Your task to perform on an android device: turn on notifications settings in the gmail app Image 0: 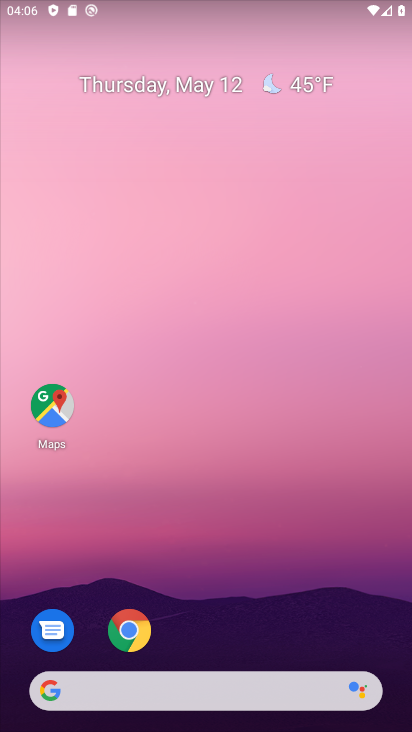
Step 0: drag from (209, 602) to (260, 68)
Your task to perform on an android device: turn on notifications settings in the gmail app Image 1: 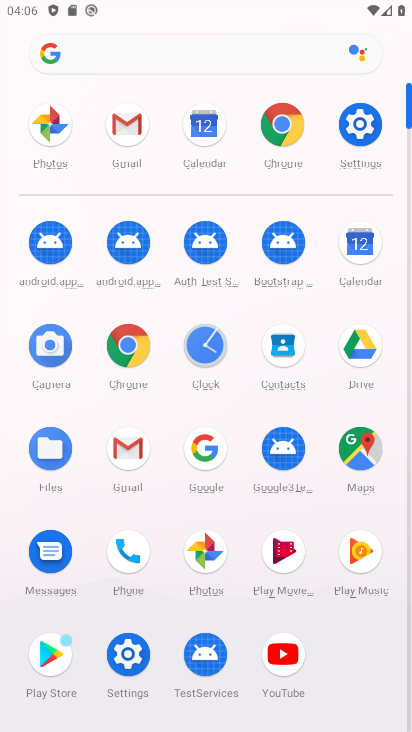
Step 1: click (115, 450)
Your task to perform on an android device: turn on notifications settings in the gmail app Image 2: 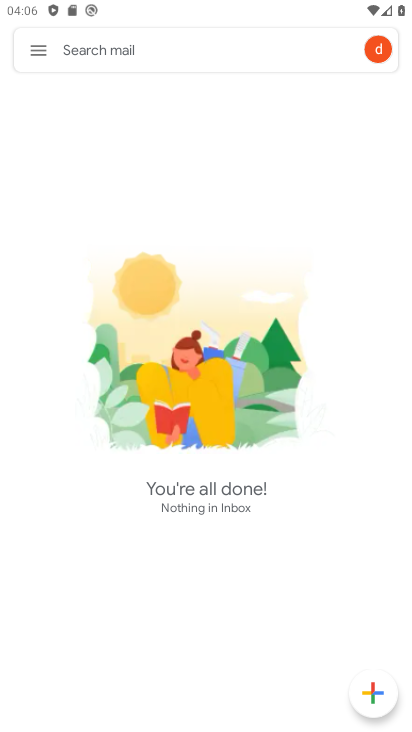
Step 2: click (39, 46)
Your task to perform on an android device: turn on notifications settings in the gmail app Image 3: 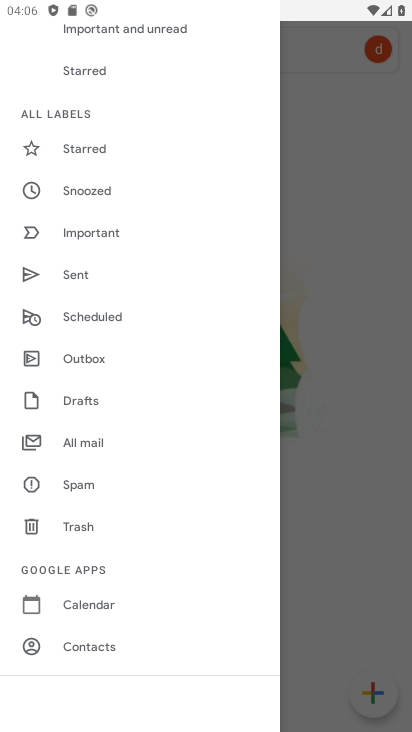
Step 3: drag from (76, 575) to (108, 206)
Your task to perform on an android device: turn on notifications settings in the gmail app Image 4: 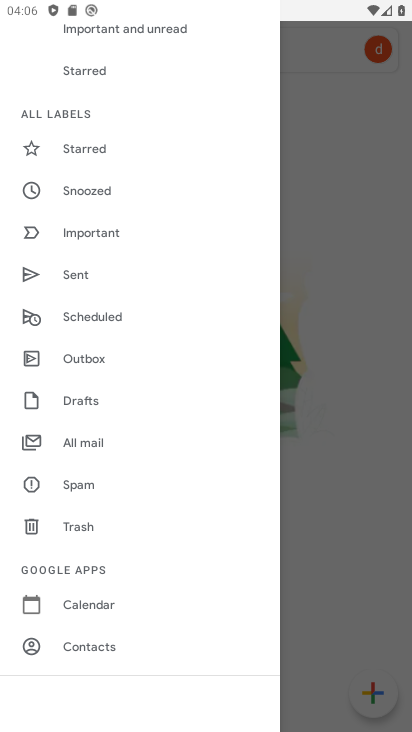
Step 4: drag from (93, 621) to (136, 211)
Your task to perform on an android device: turn on notifications settings in the gmail app Image 5: 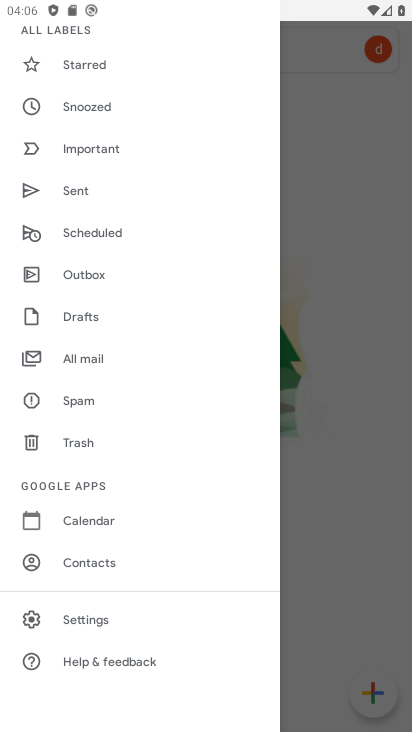
Step 5: click (94, 622)
Your task to perform on an android device: turn on notifications settings in the gmail app Image 6: 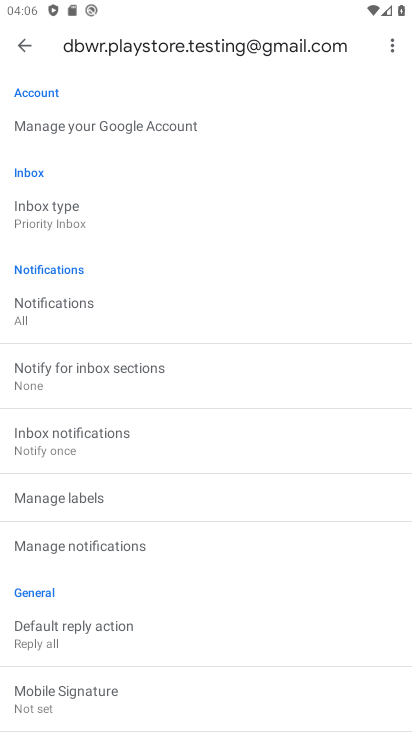
Step 6: click (19, 37)
Your task to perform on an android device: turn on notifications settings in the gmail app Image 7: 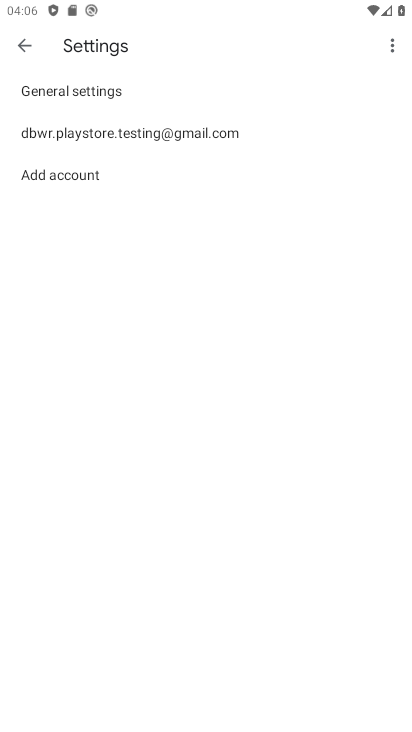
Step 7: click (111, 83)
Your task to perform on an android device: turn on notifications settings in the gmail app Image 8: 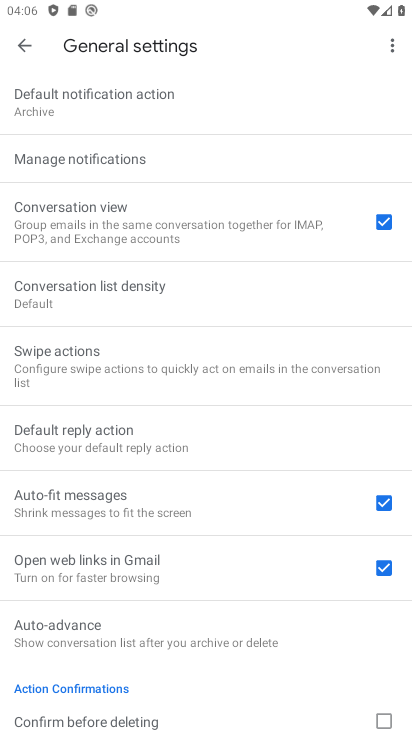
Step 8: click (97, 152)
Your task to perform on an android device: turn on notifications settings in the gmail app Image 9: 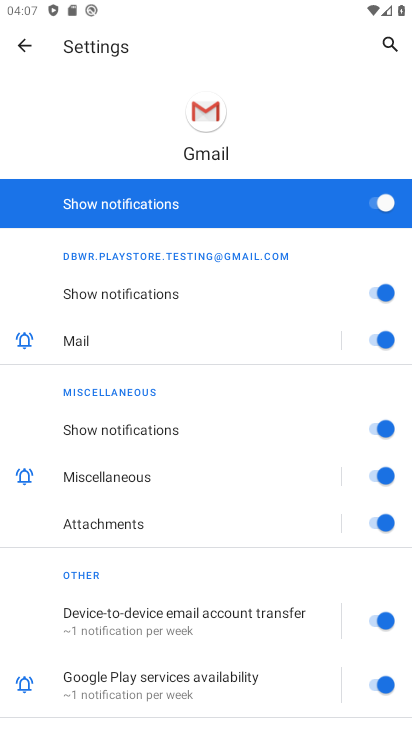
Step 9: task complete